Your task to perform on an android device: Open Maps and search for coffee Image 0: 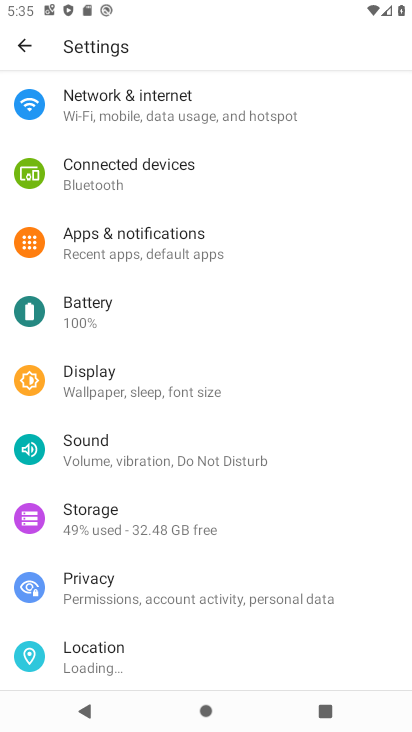
Step 0: press home button
Your task to perform on an android device: Open Maps and search for coffee Image 1: 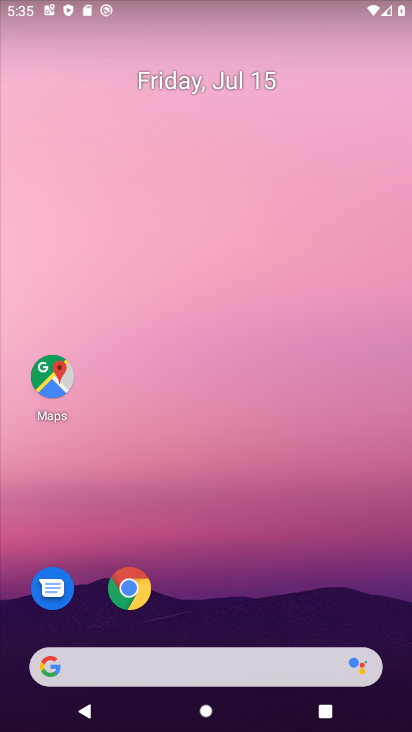
Step 1: drag from (188, 657) to (399, 596)
Your task to perform on an android device: Open Maps and search for coffee Image 2: 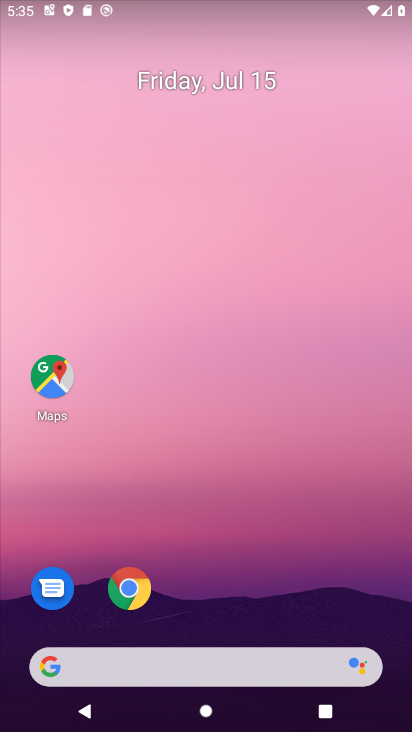
Step 2: drag from (153, 665) to (264, 6)
Your task to perform on an android device: Open Maps and search for coffee Image 3: 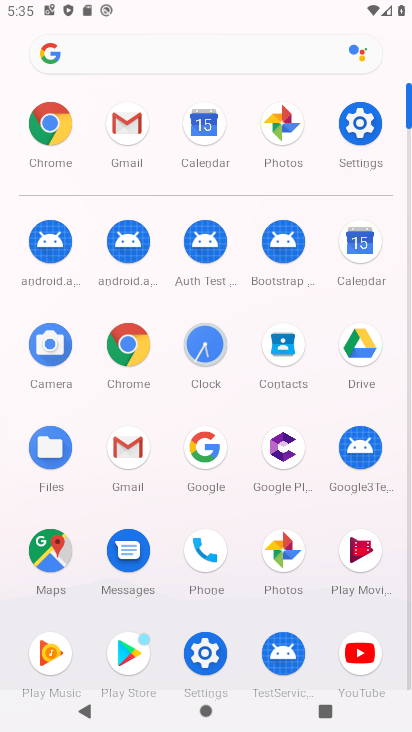
Step 3: click (46, 549)
Your task to perform on an android device: Open Maps and search for coffee Image 4: 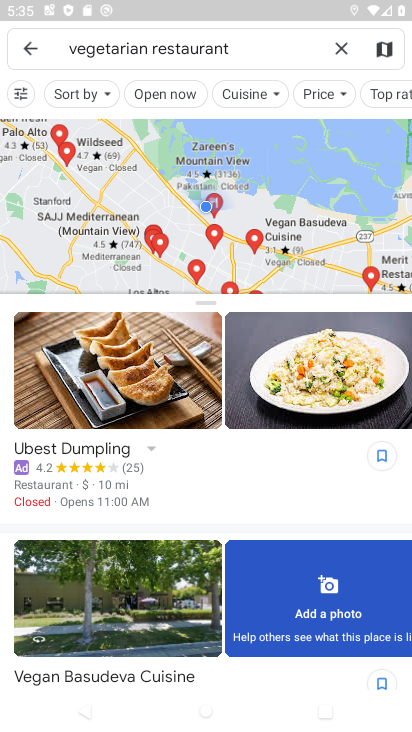
Step 4: click (335, 43)
Your task to perform on an android device: Open Maps and search for coffee Image 5: 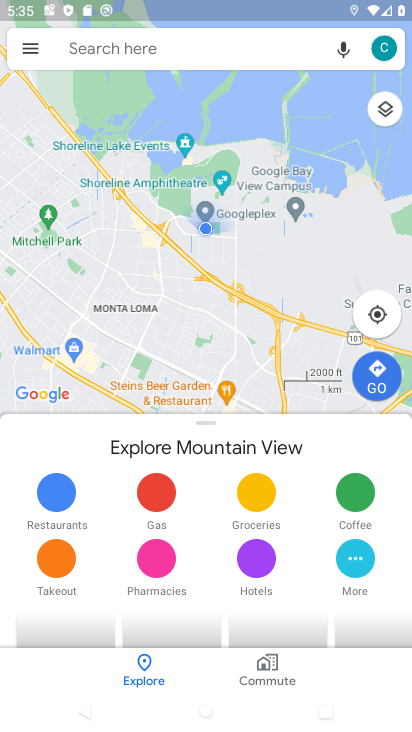
Step 5: click (226, 50)
Your task to perform on an android device: Open Maps and search for coffee Image 6: 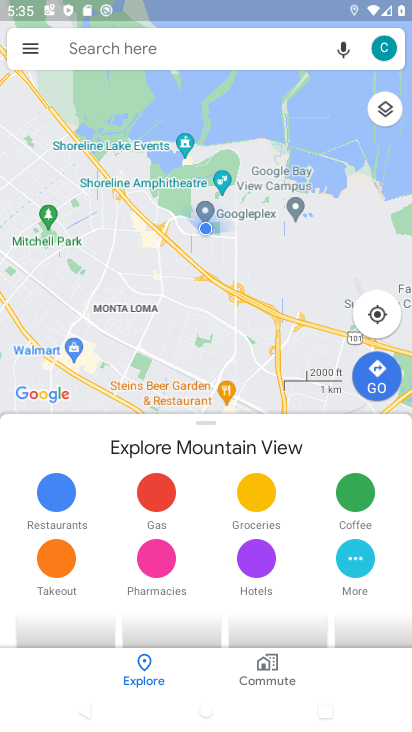
Step 6: click (226, 50)
Your task to perform on an android device: Open Maps and search for coffee Image 7: 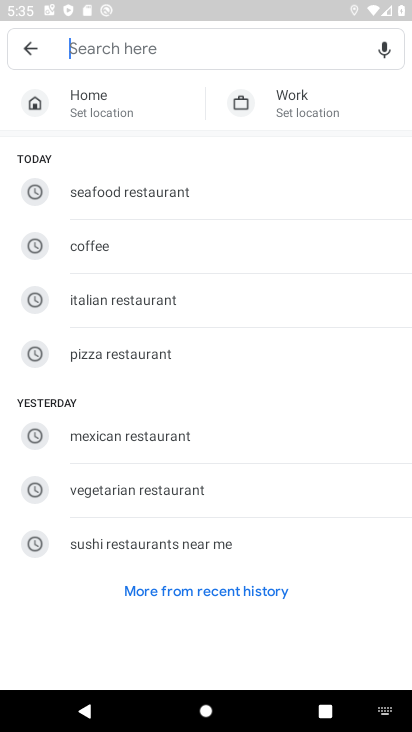
Step 7: click (178, 252)
Your task to perform on an android device: Open Maps and search for coffee Image 8: 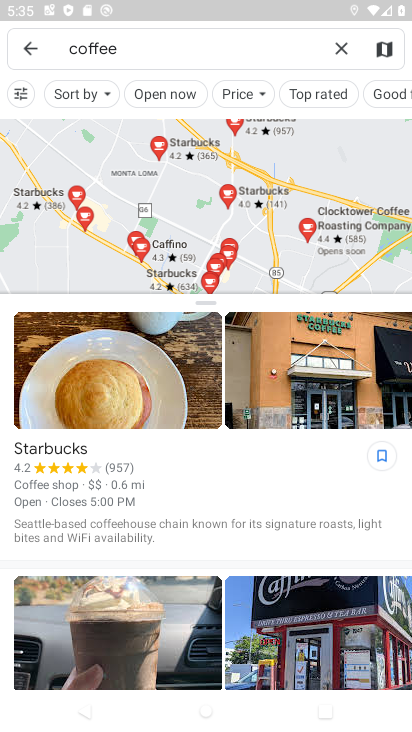
Step 8: task complete